Your task to perform on an android device: open device folders in google photos Image 0: 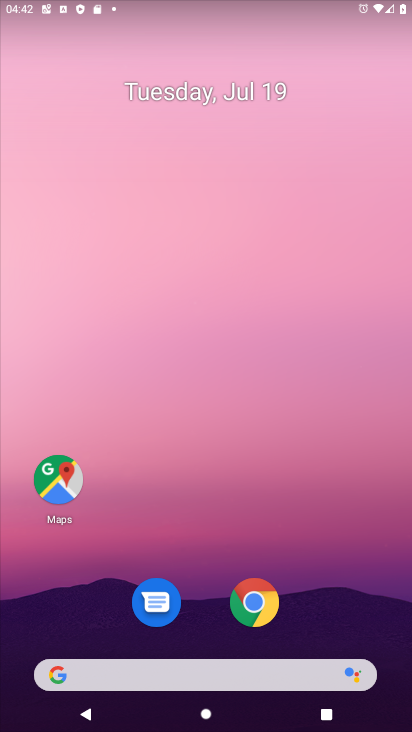
Step 0: drag from (220, 592) to (226, 360)
Your task to perform on an android device: open device folders in google photos Image 1: 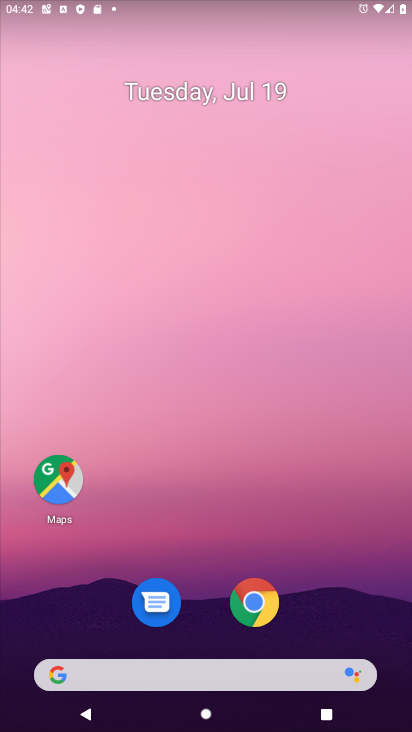
Step 1: drag from (191, 652) to (213, 78)
Your task to perform on an android device: open device folders in google photos Image 2: 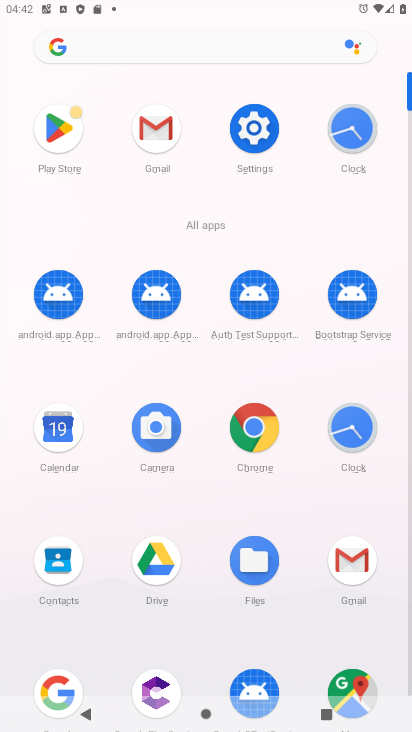
Step 2: drag from (171, 609) to (177, 246)
Your task to perform on an android device: open device folders in google photos Image 3: 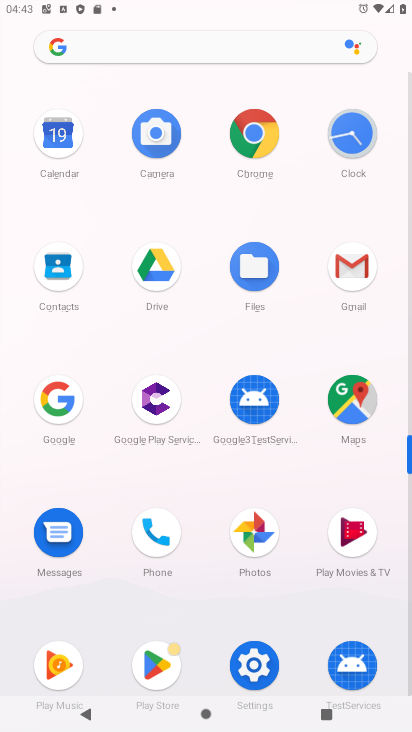
Step 3: click (249, 551)
Your task to perform on an android device: open device folders in google photos Image 4: 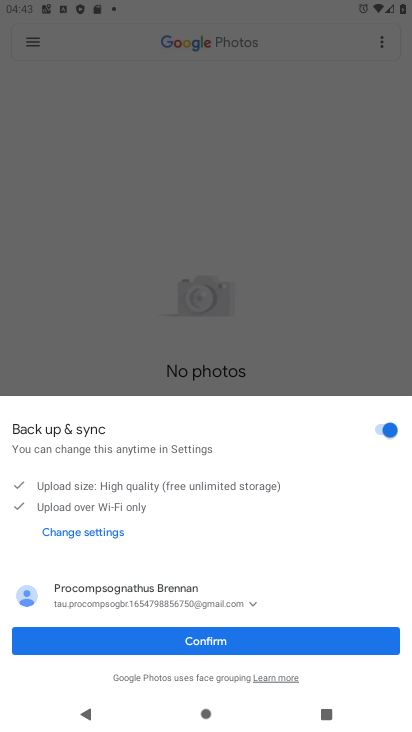
Step 4: click (296, 642)
Your task to perform on an android device: open device folders in google photos Image 5: 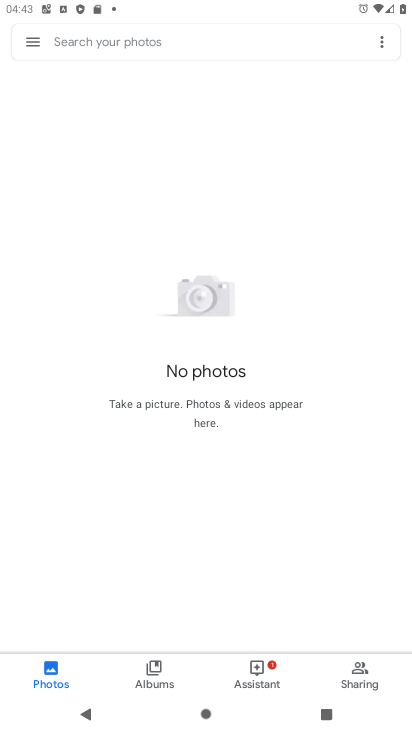
Step 5: click (44, 42)
Your task to perform on an android device: open device folders in google photos Image 6: 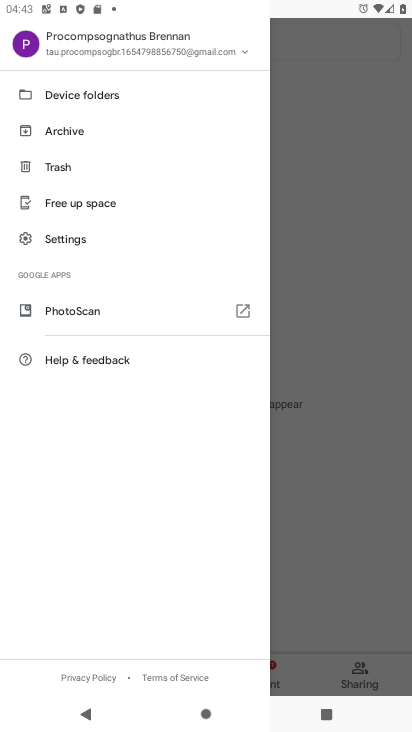
Step 6: click (70, 86)
Your task to perform on an android device: open device folders in google photos Image 7: 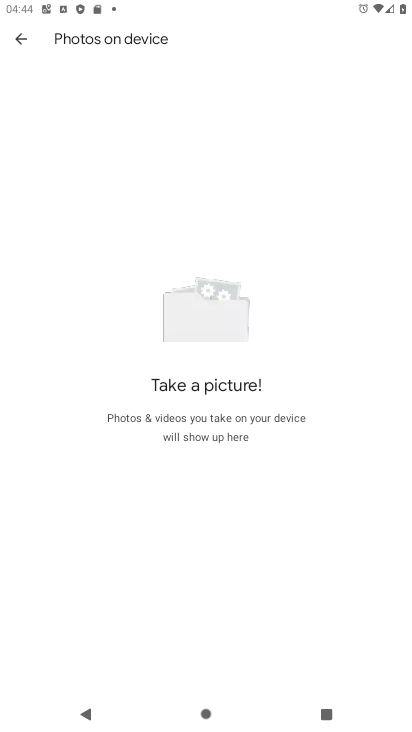
Step 7: click (18, 47)
Your task to perform on an android device: open device folders in google photos Image 8: 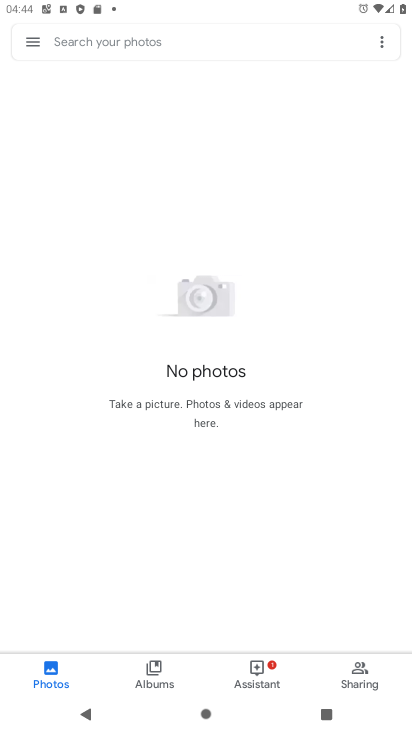
Step 8: click (18, 47)
Your task to perform on an android device: open device folders in google photos Image 9: 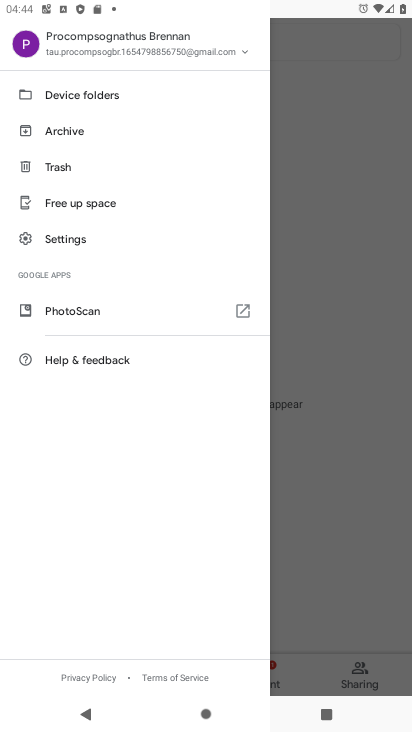
Step 9: click (66, 94)
Your task to perform on an android device: open device folders in google photos Image 10: 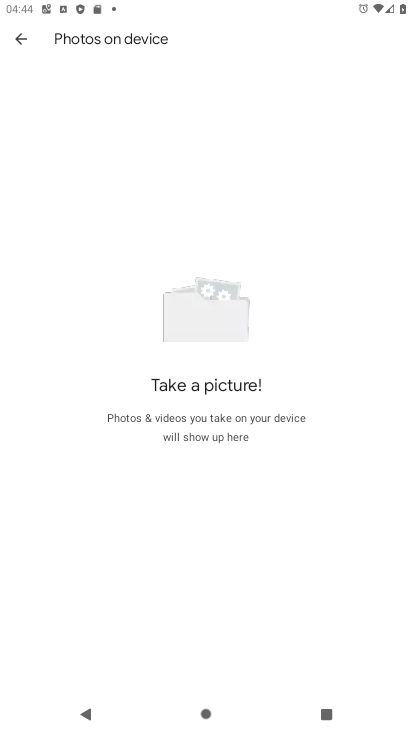
Step 10: task complete